Your task to perform on an android device: clear history in the chrome app Image 0: 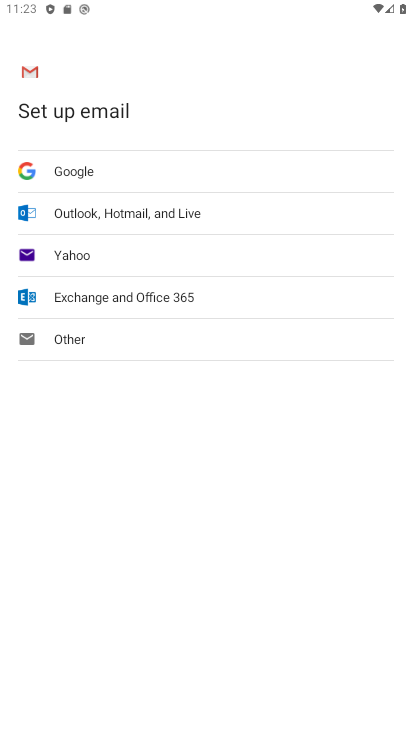
Step 0: press home button
Your task to perform on an android device: clear history in the chrome app Image 1: 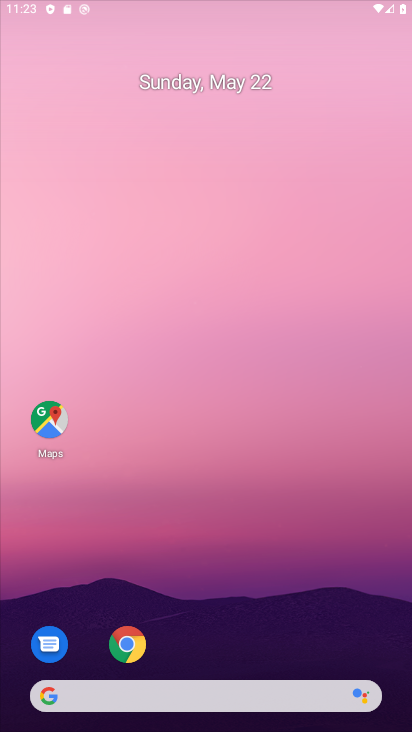
Step 1: drag from (370, 626) to (260, 32)
Your task to perform on an android device: clear history in the chrome app Image 2: 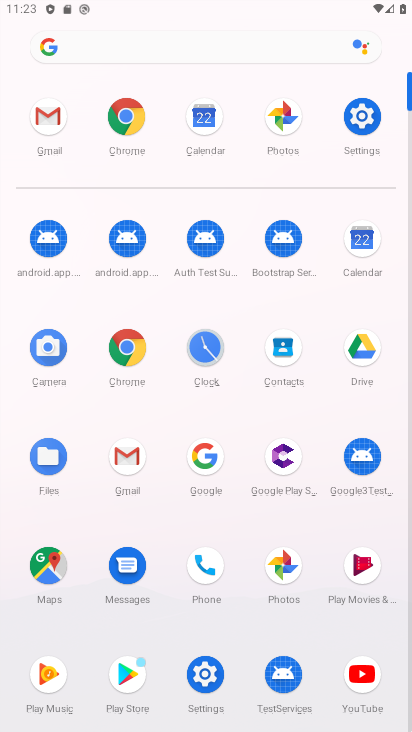
Step 2: click (134, 142)
Your task to perform on an android device: clear history in the chrome app Image 3: 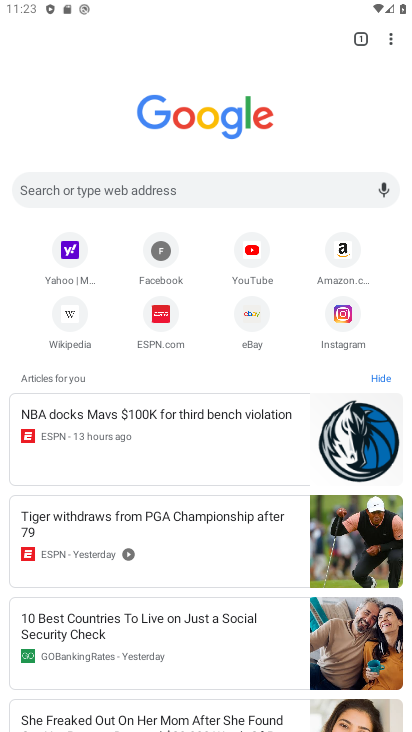
Step 3: click (395, 36)
Your task to perform on an android device: clear history in the chrome app Image 4: 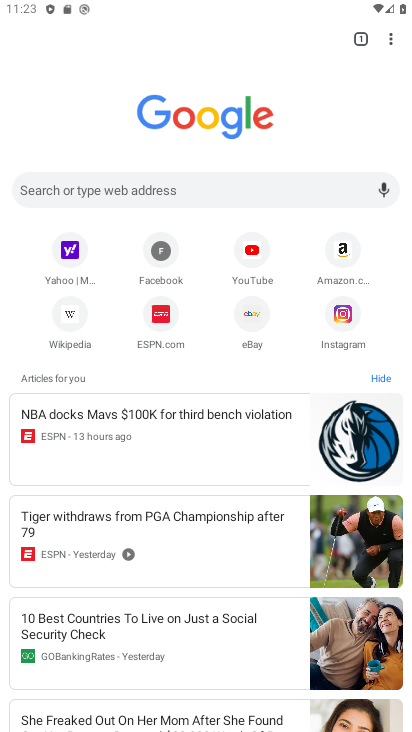
Step 4: click (388, 30)
Your task to perform on an android device: clear history in the chrome app Image 5: 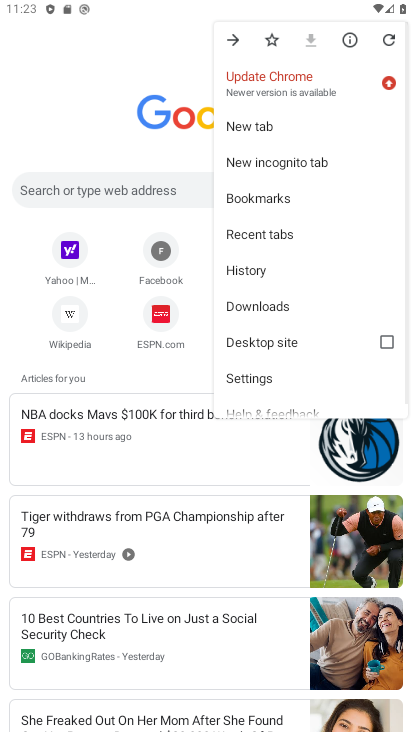
Step 5: click (264, 281)
Your task to perform on an android device: clear history in the chrome app Image 6: 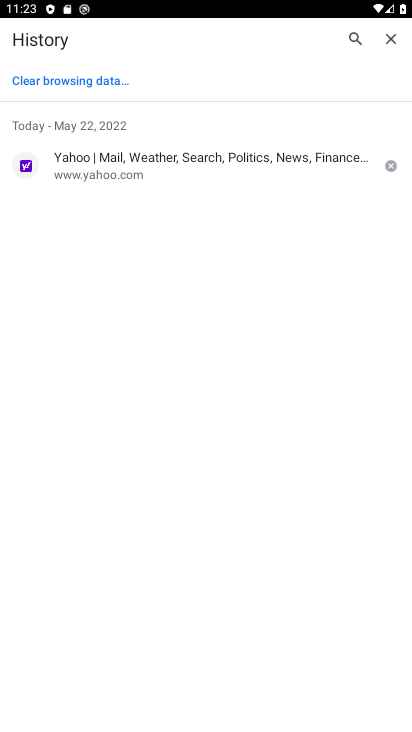
Step 6: click (68, 85)
Your task to perform on an android device: clear history in the chrome app Image 7: 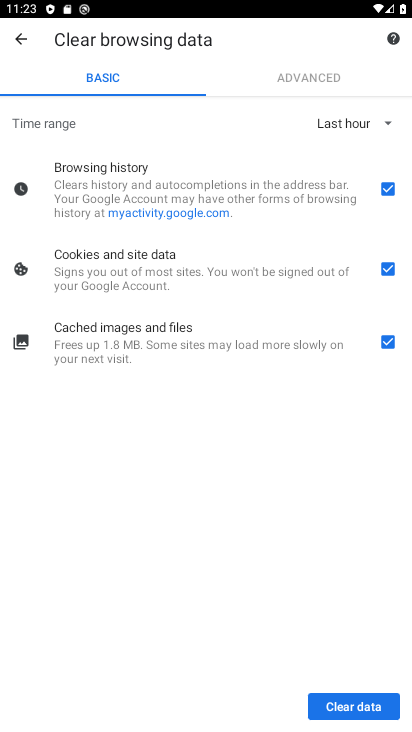
Step 7: click (350, 702)
Your task to perform on an android device: clear history in the chrome app Image 8: 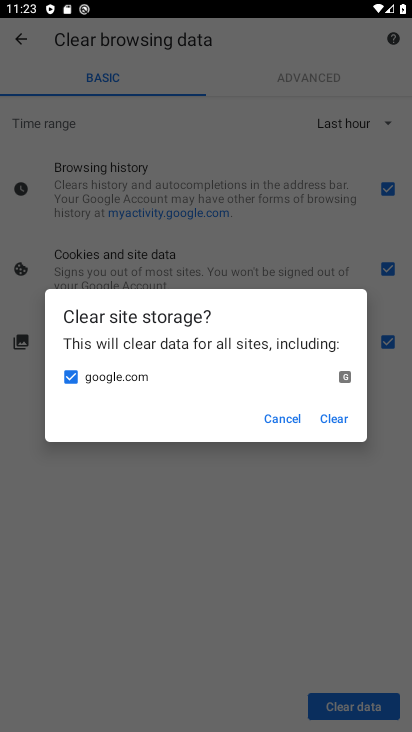
Step 8: click (337, 422)
Your task to perform on an android device: clear history in the chrome app Image 9: 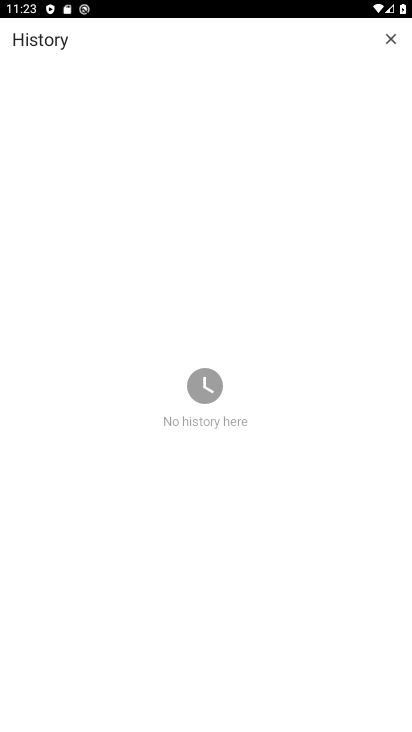
Step 9: task complete